Your task to perform on an android device: Check the weather Image 0: 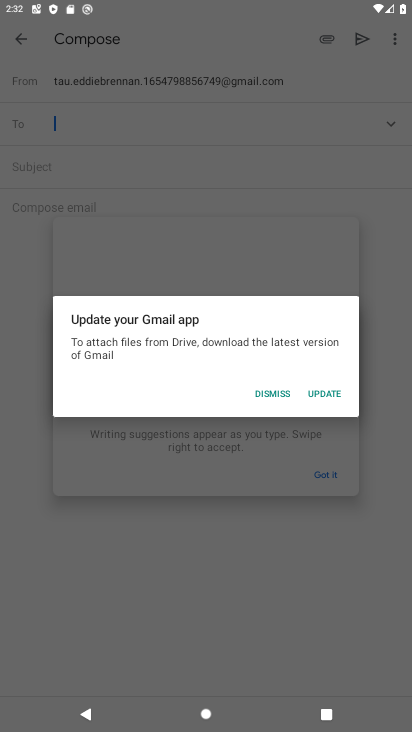
Step 0: press home button
Your task to perform on an android device: Check the weather Image 1: 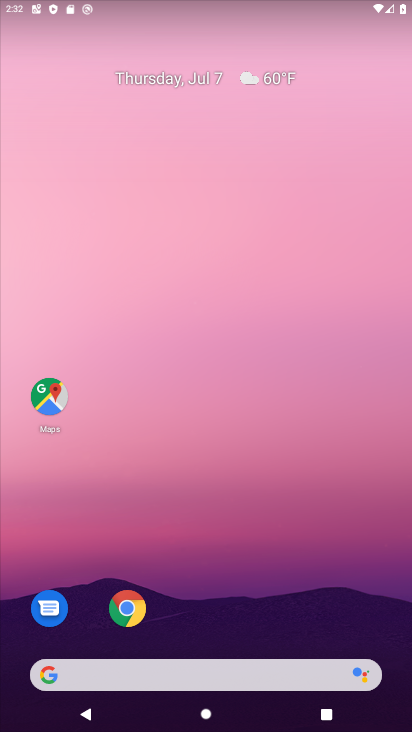
Step 1: drag from (226, 634) to (249, 87)
Your task to perform on an android device: Check the weather Image 2: 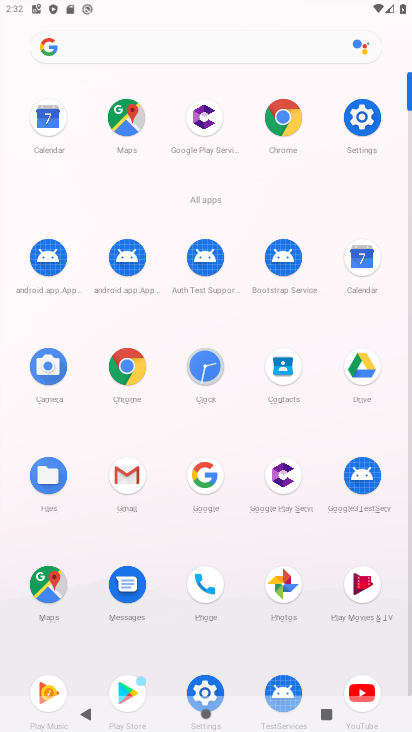
Step 2: press back button
Your task to perform on an android device: Check the weather Image 3: 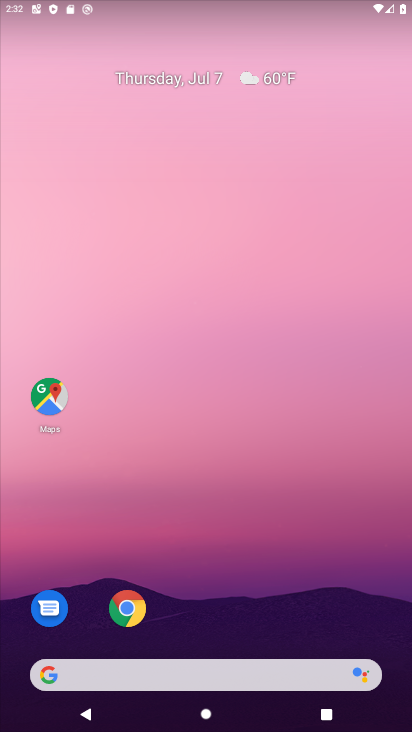
Step 3: click (202, 665)
Your task to perform on an android device: Check the weather Image 4: 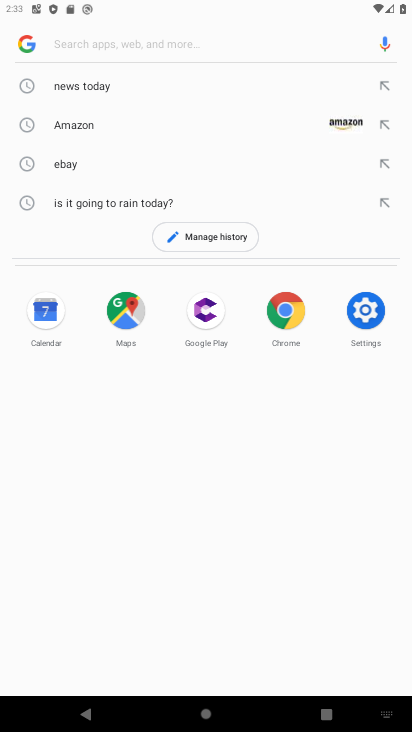
Step 4: click (119, 16)
Your task to perform on an android device: Check the weather Image 5: 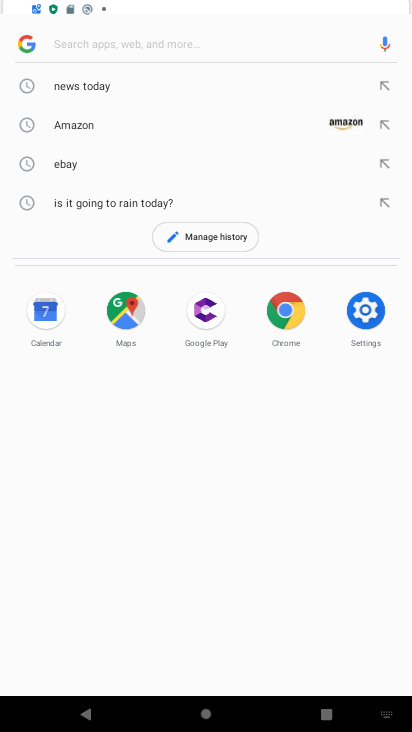
Step 5: click (111, 40)
Your task to perform on an android device: Check the weather Image 6: 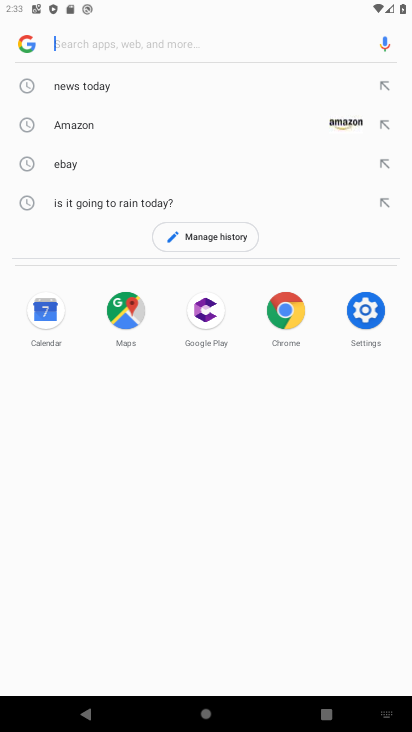
Step 6: type "weather"
Your task to perform on an android device: Check the weather Image 7: 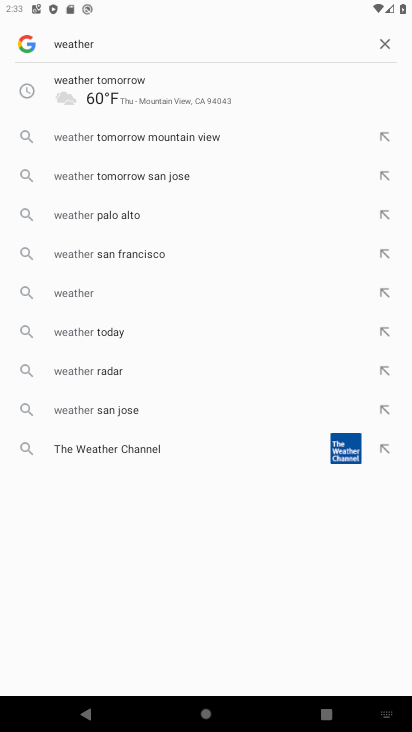
Step 7: click (138, 92)
Your task to perform on an android device: Check the weather Image 8: 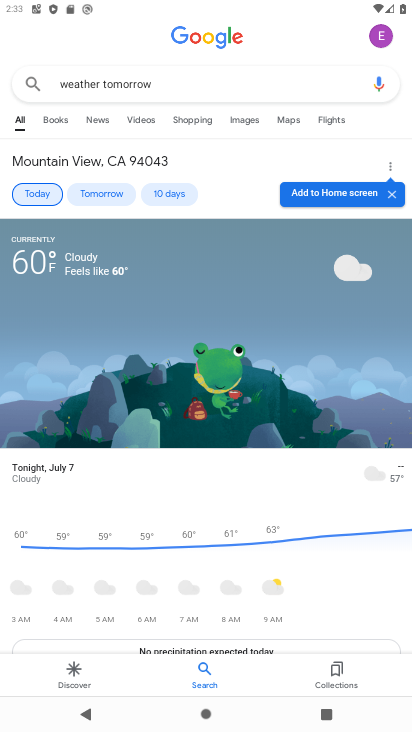
Step 8: click (33, 192)
Your task to perform on an android device: Check the weather Image 9: 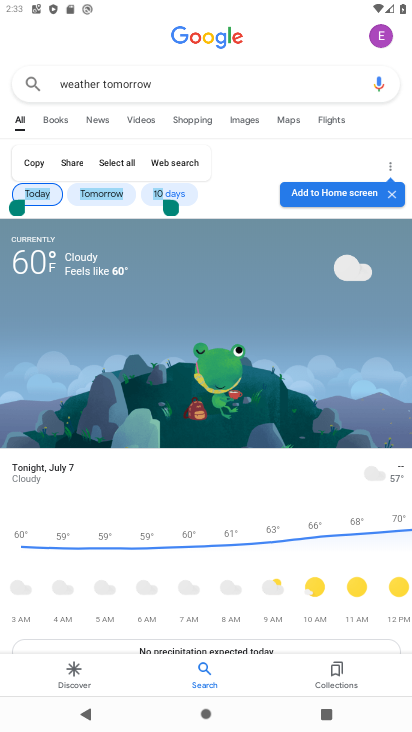
Step 9: task complete